Your task to perform on an android device: find which apps use the phone's location Image 0: 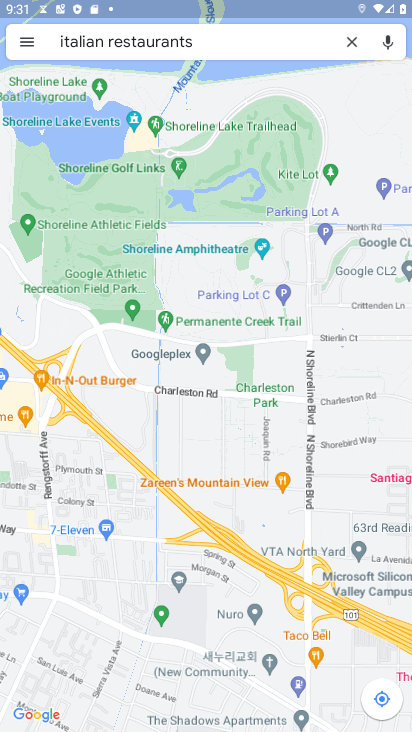
Step 0: press home button
Your task to perform on an android device: find which apps use the phone's location Image 1: 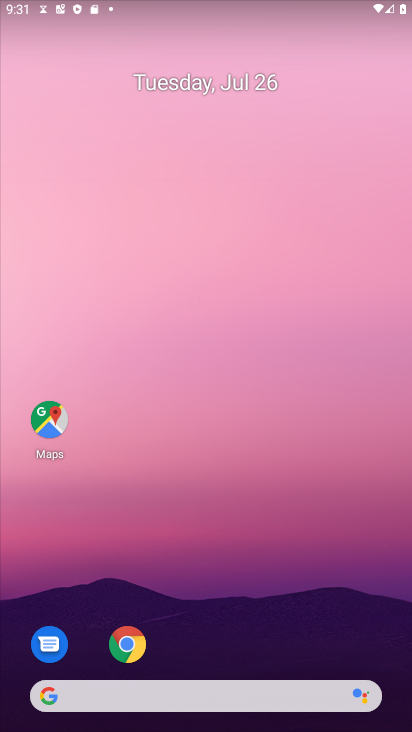
Step 1: drag from (221, 660) to (261, 14)
Your task to perform on an android device: find which apps use the phone's location Image 2: 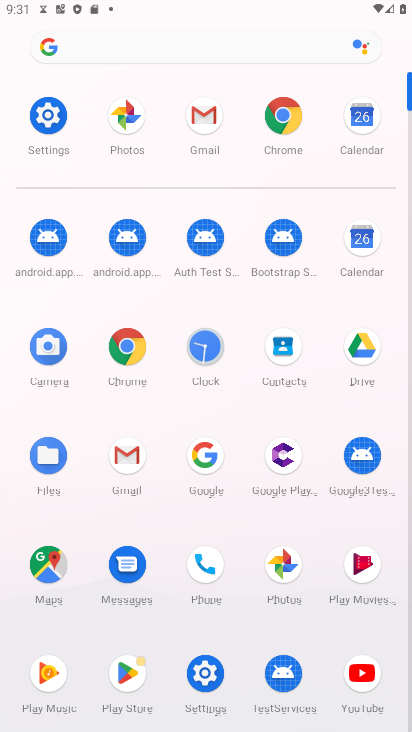
Step 2: click (212, 672)
Your task to perform on an android device: find which apps use the phone's location Image 3: 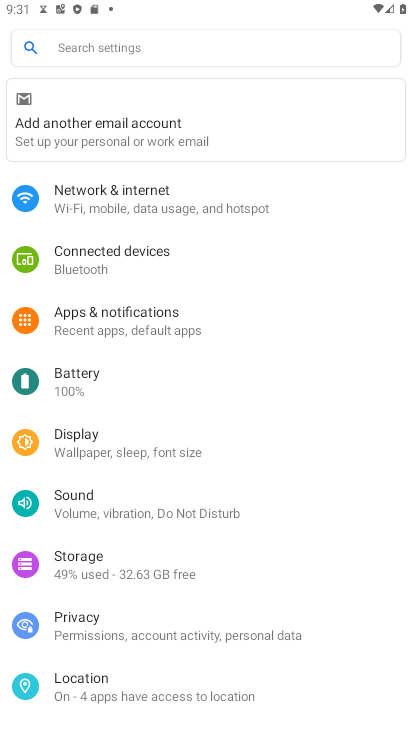
Step 3: click (102, 684)
Your task to perform on an android device: find which apps use the phone's location Image 4: 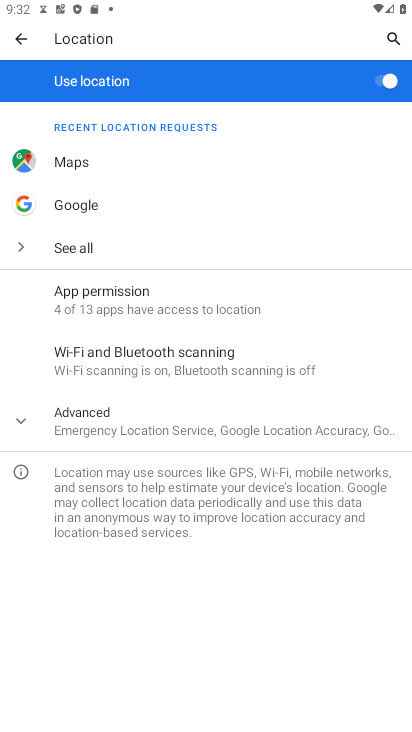
Step 4: click (105, 294)
Your task to perform on an android device: find which apps use the phone's location Image 5: 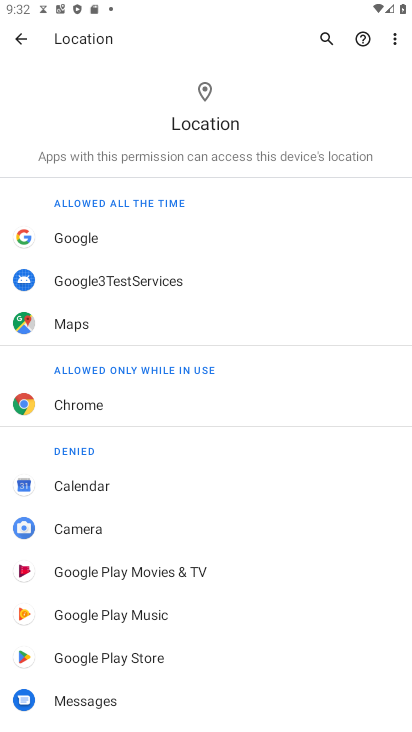
Step 5: task complete